Your task to perform on an android device: Open Amazon Image 0: 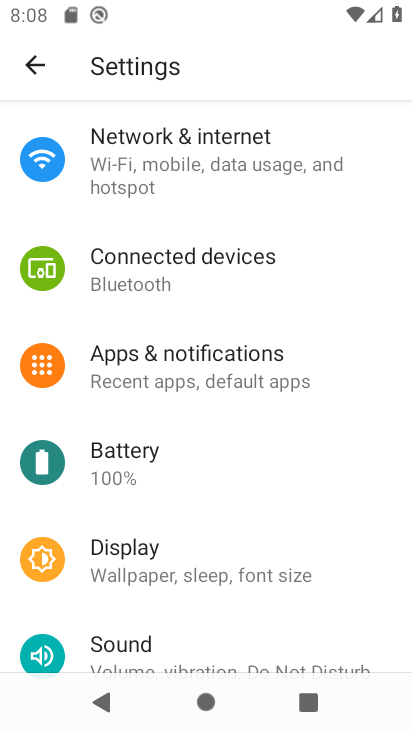
Step 0: task impossible